Your task to perform on an android device: turn on data saver in the chrome app Image 0: 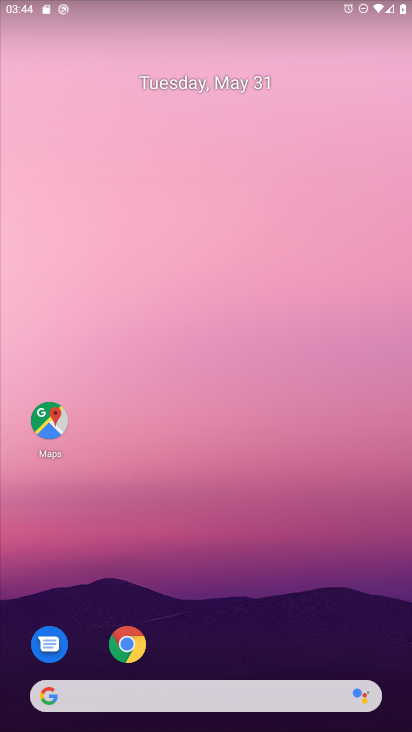
Step 0: click (128, 644)
Your task to perform on an android device: turn on data saver in the chrome app Image 1: 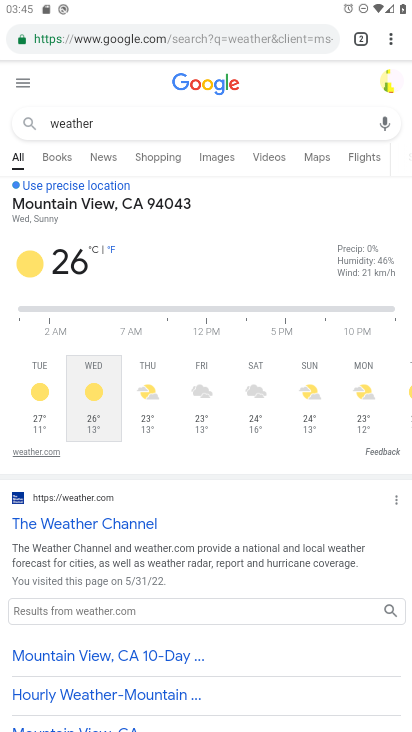
Step 1: drag from (390, 37) to (277, 442)
Your task to perform on an android device: turn on data saver in the chrome app Image 2: 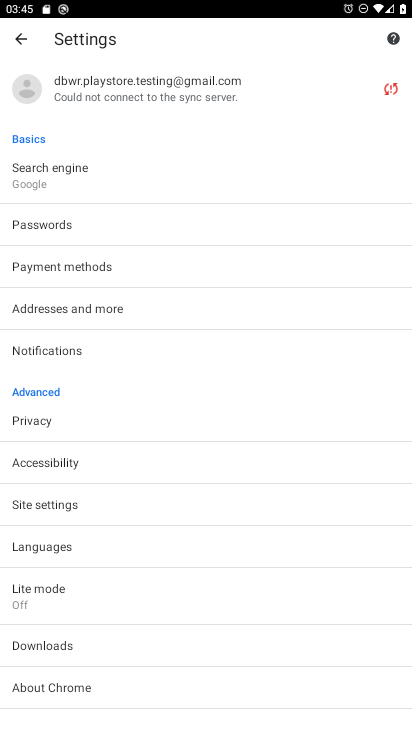
Step 2: click (124, 194)
Your task to perform on an android device: turn on data saver in the chrome app Image 3: 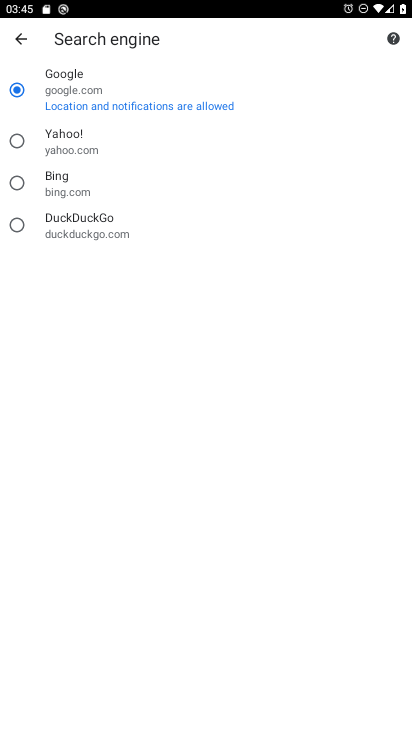
Step 3: click (19, 41)
Your task to perform on an android device: turn on data saver in the chrome app Image 4: 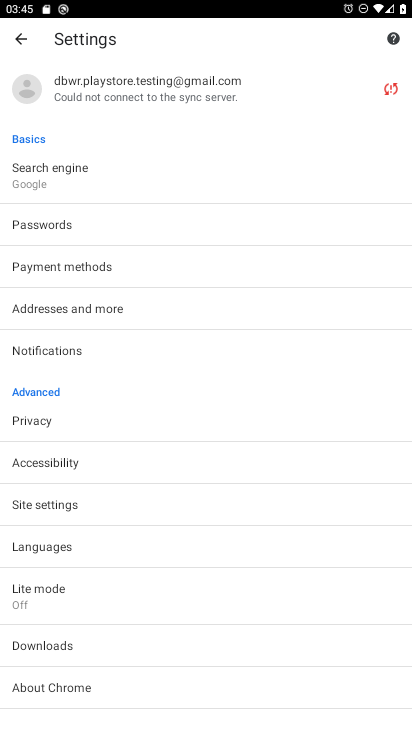
Step 4: click (90, 585)
Your task to perform on an android device: turn on data saver in the chrome app Image 5: 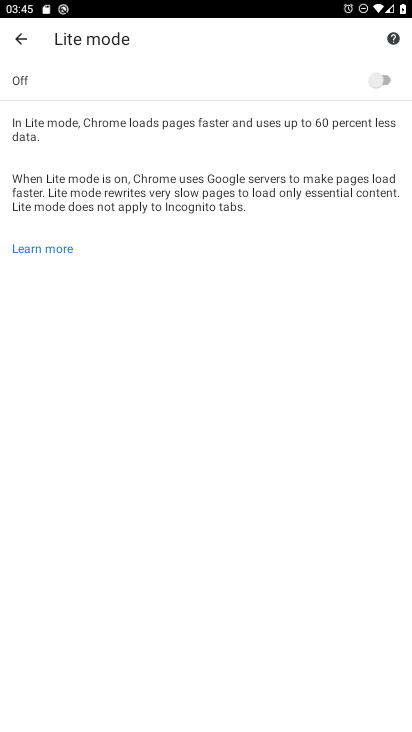
Step 5: click (381, 80)
Your task to perform on an android device: turn on data saver in the chrome app Image 6: 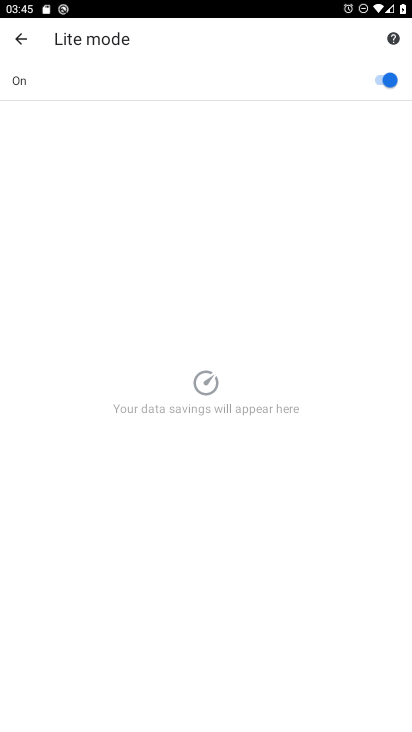
Step 6: task complete